Your task to perform on an android device: open sync settings in chrome Image 0: 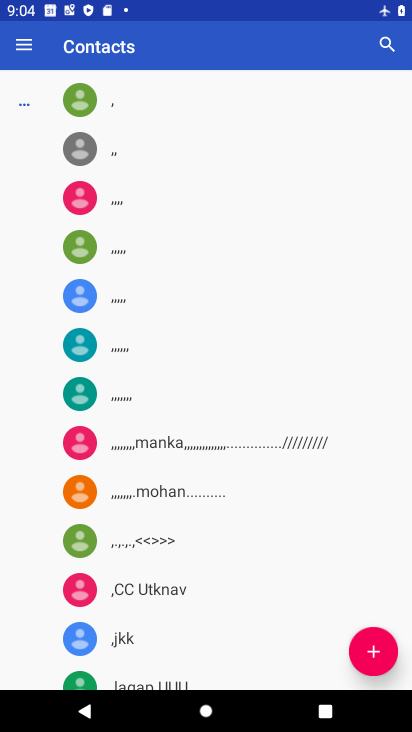
Step 0: press home button
Your task to perform on an android device: open sync settings in chrome Image 1: 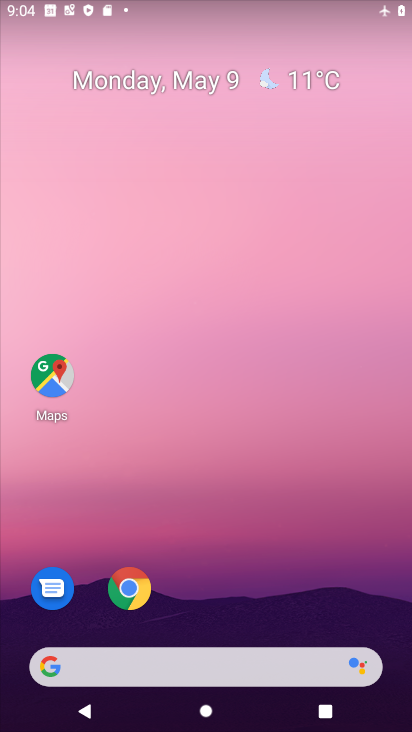
Step 1: drag from (165, 656) to (286, 221)
Your task to perform on an android device: open sync settings in chrome Image 2: 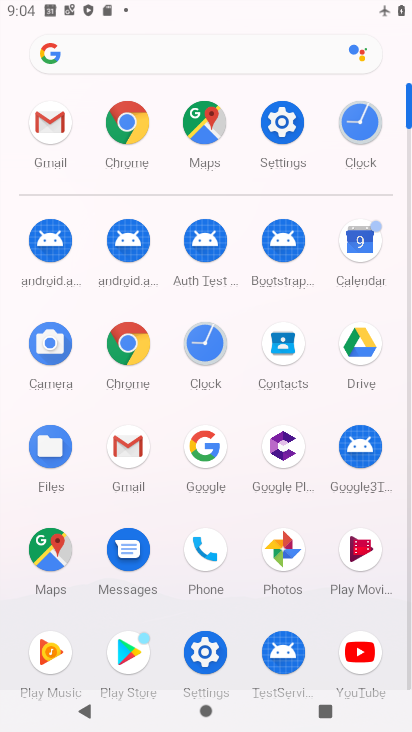
Step 2: click (132, 132)
Your task to perform on an android device: open sync settings in chrome Image 3: 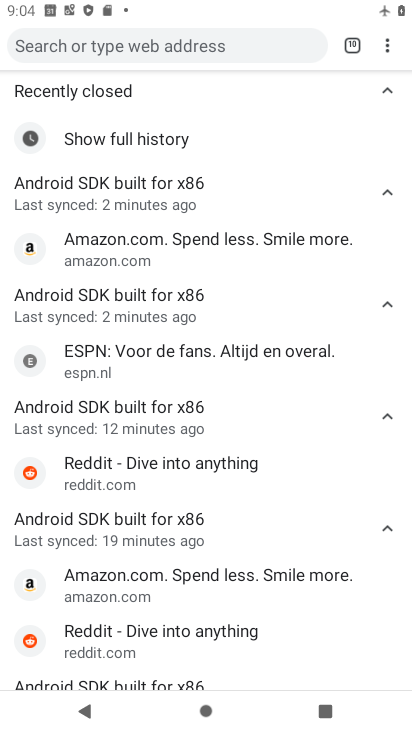
Step 3: drag from (386, 45) to (254, 382)
Your task to perform on an android device: open sync settings in chrome Image 4: 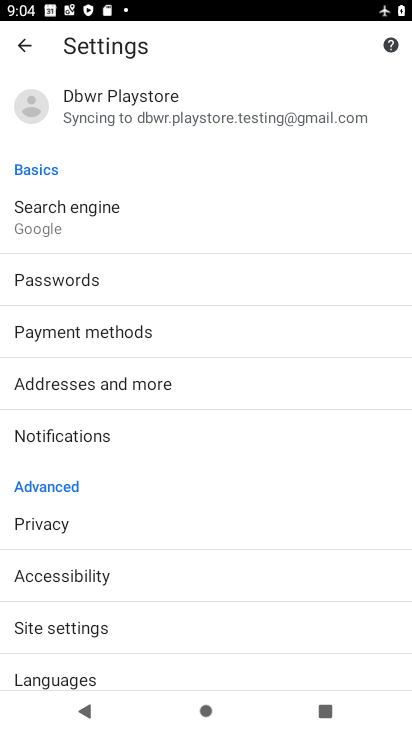
Step 4: click (150, 117)
Your task to perform on an android device: open sync settings in chrome Image 5: 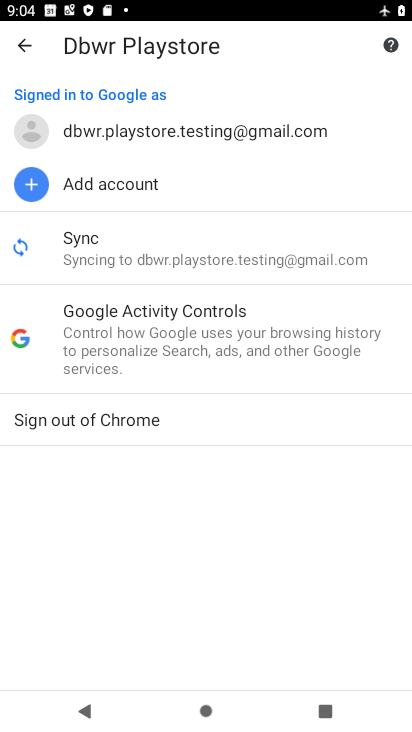
Step 5: click (178, 249)
Your task to perform on an android device: open sync settings in chrome Image 6: 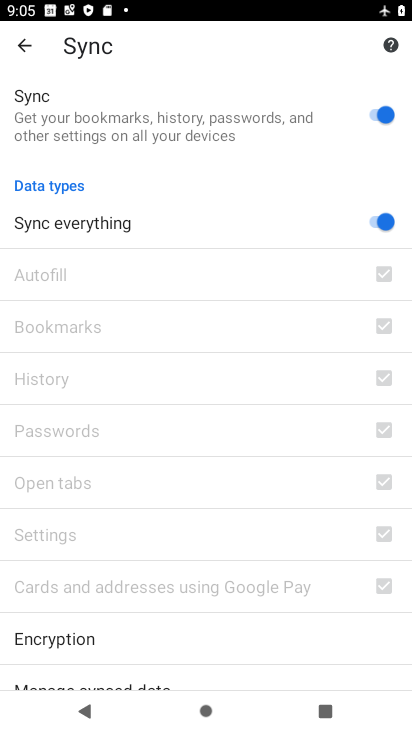
Step 6: task complete